Your task to perform on an android device: open a new tab in the chrome app Image 0: 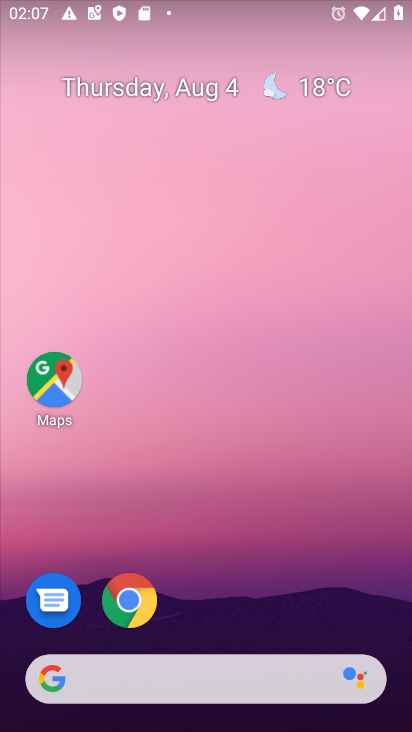
Step 0: click (122, 609)
Your task to perform on an android device: open a new tab in the chrome app Image 1: 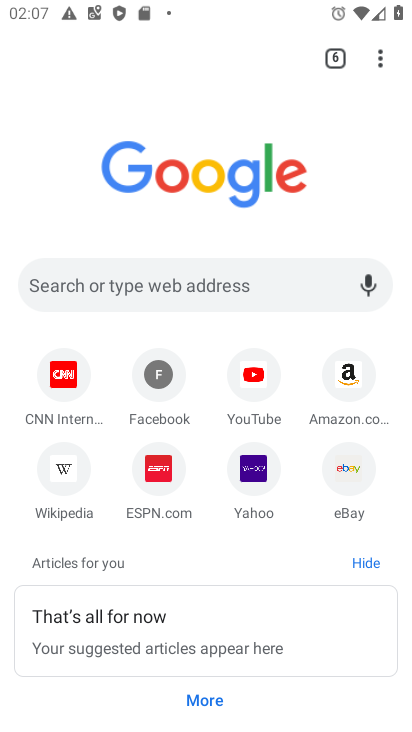
Step 1: task complete